Your task to perform on an android device: What's the weather going to be tomorrow? Image 0: 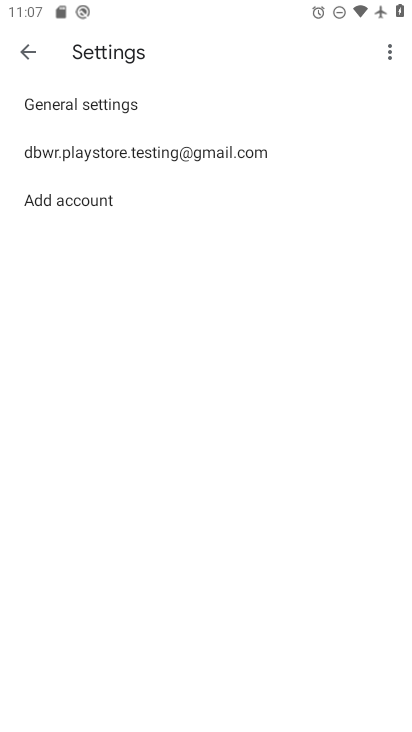
Step 0: press home button
Your task to perform on an android device: What's the weather going to be tomorrow? Image 1: 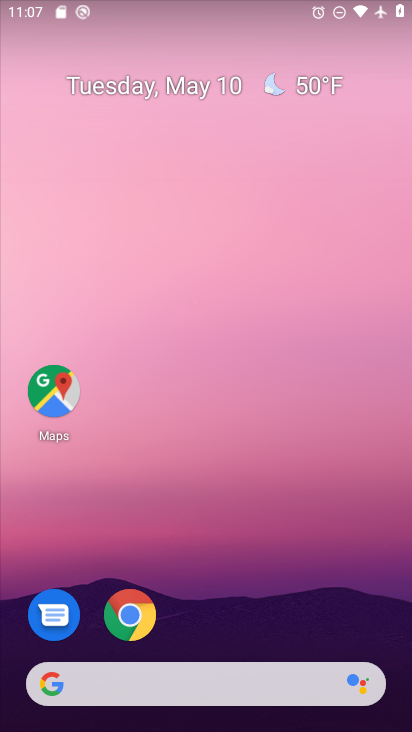
Step 1: click (302, 79)
Your task to perform on an android device: What's the weather going to be tomorrow? Image 2: 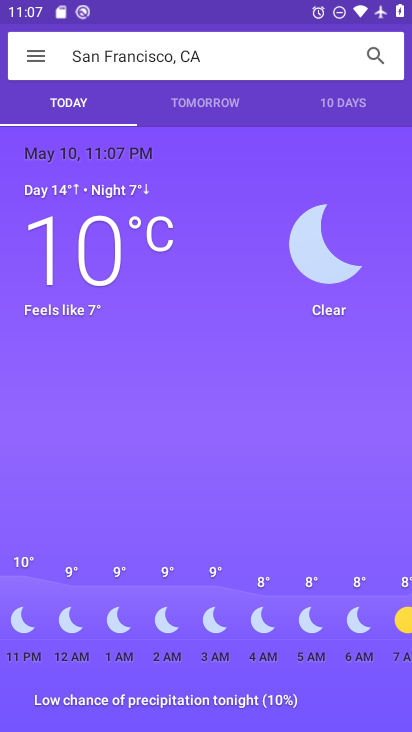
Step 2: click (191, 95)
Your task to perform on an android device: What's the weather going to be tomorrow? Image 3: 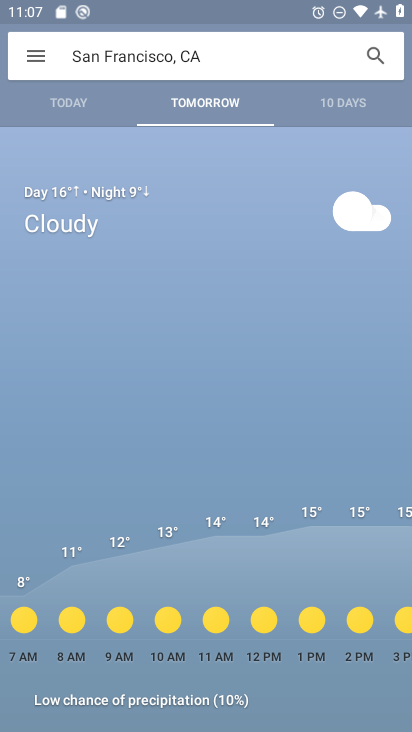
Step 3: task complete